Your task to perform on an android device: Is it going to rain today? Image 0: 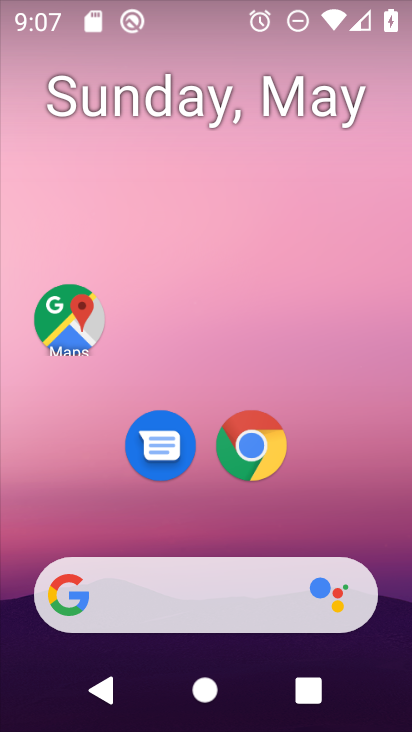
Step 0: drag from (287, 575) to (309, 132)
Your task to perform on an android device: Is it going to rain today? Image 1: 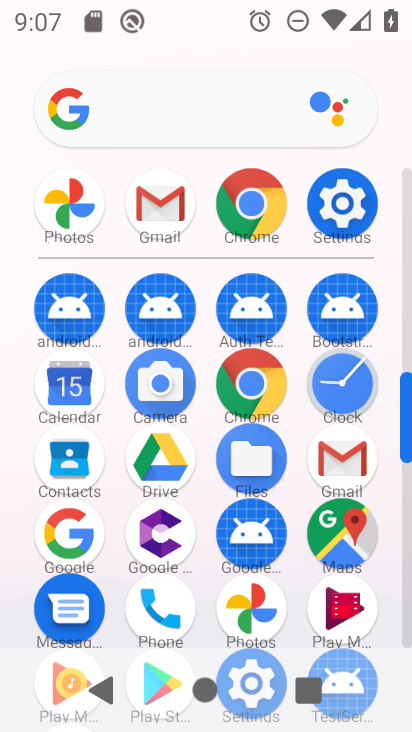
Step 1: click (75, 544)
Your task to perform on an android device: Is it going to rain today? Image 2: 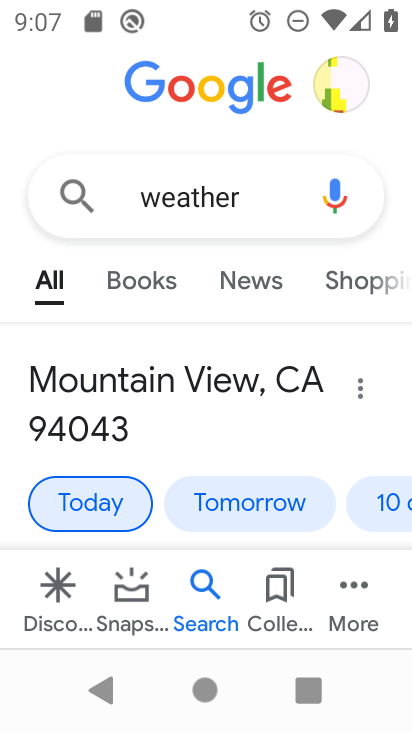
Step 2: task complete